Your task to perform on an android device: Open the stopwatch Image 0: 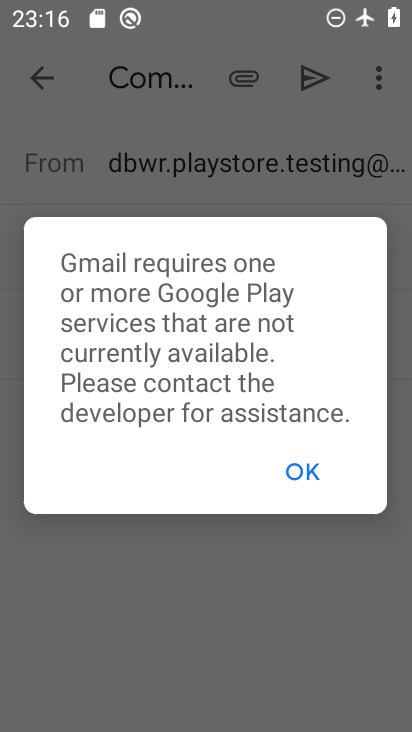
Step 0: click (247, 632)
Your task to perform on an android device: Open the stopwatch Image 1: 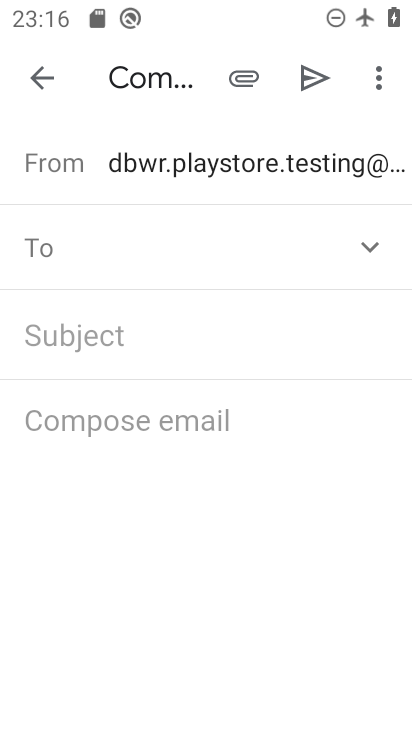
Step 1: press home button
Your task to perform on an android device: Open the stopwatch Image 2: 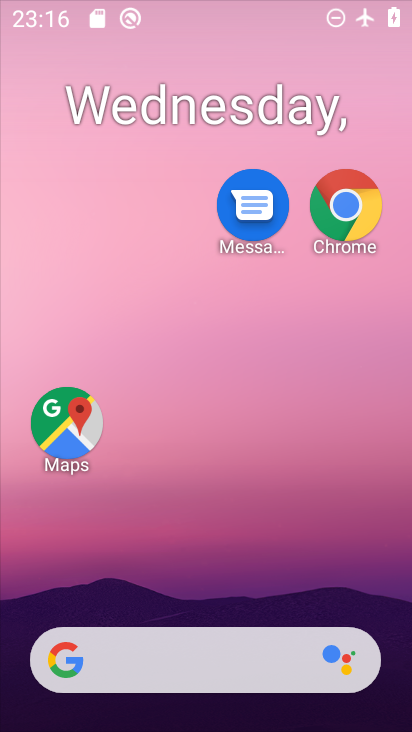
Step 2: drag from (236, 615) to (363, 28)
Your task to perform on an android device: Open the stopwatch Image 3: 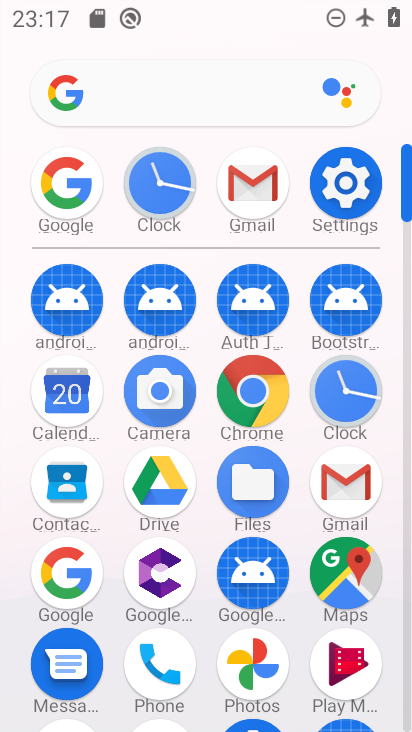
Step 3: click (351, 398)
Your task to perform on an android device: Open the stopwatch Image 4: 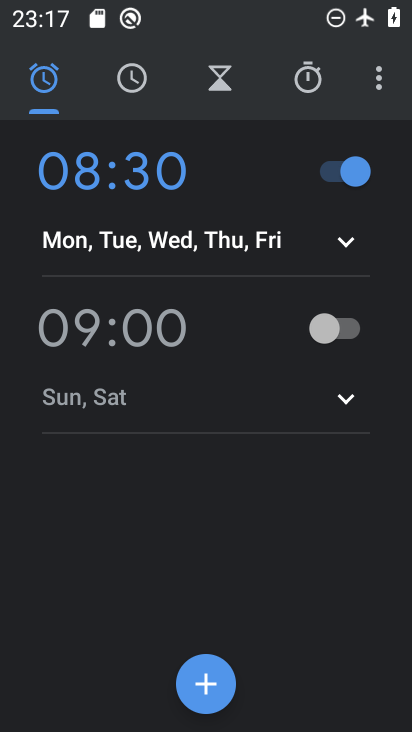
Step 4: click (327, 82)
Your task to perform on an android device: Open the stopwatch Image 5: 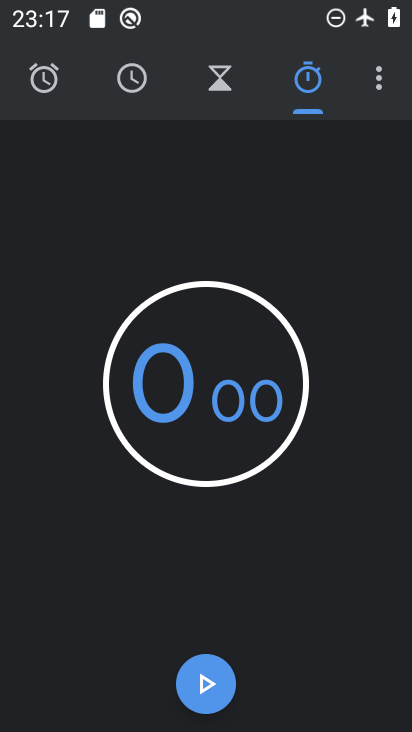
Step 5: click (223, 708)
Your task to perform on an android device: Open the stopwatch Image 6: 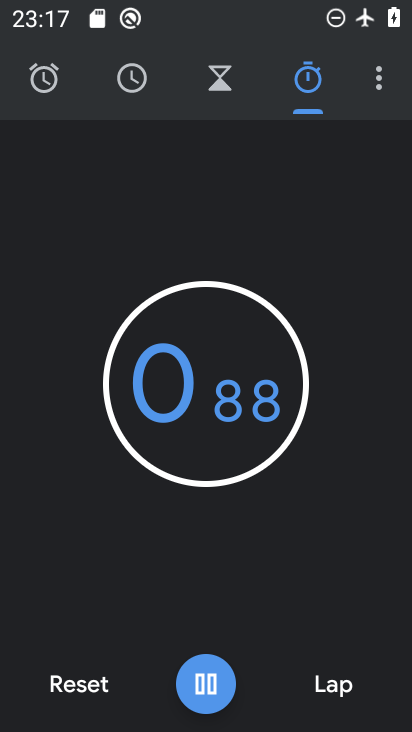
Step 6: task complete